Your task to perform on an android device: Go to Android settings Image 0: 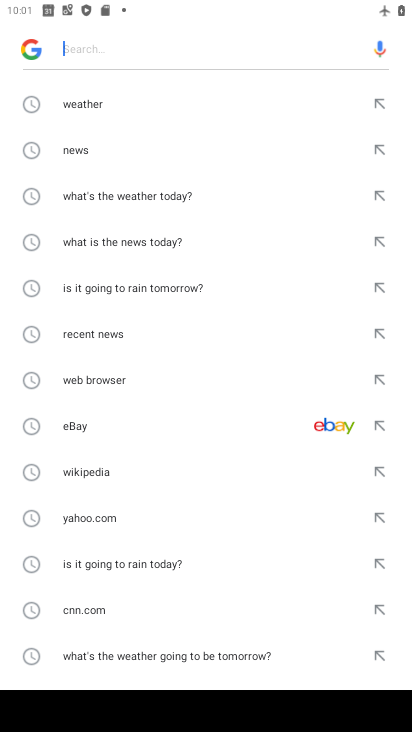
Step 0: press home button
Your task to perform on an android device: Go to Android settings Image 1: 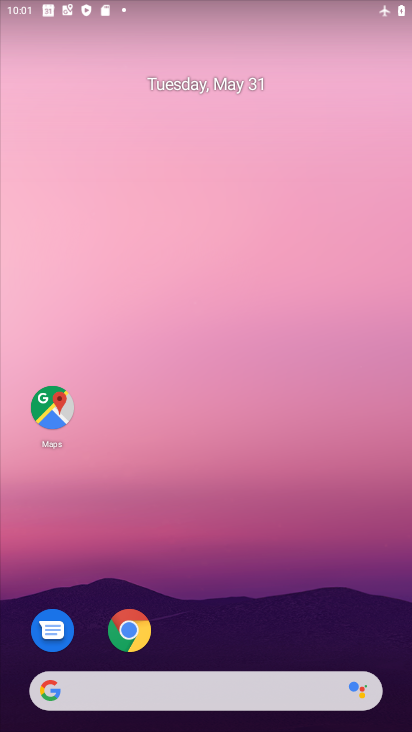
Step 1: drag from (250, 626) to (218, 217)
Your task to perform on an android device: Go to Android settings Image 2: 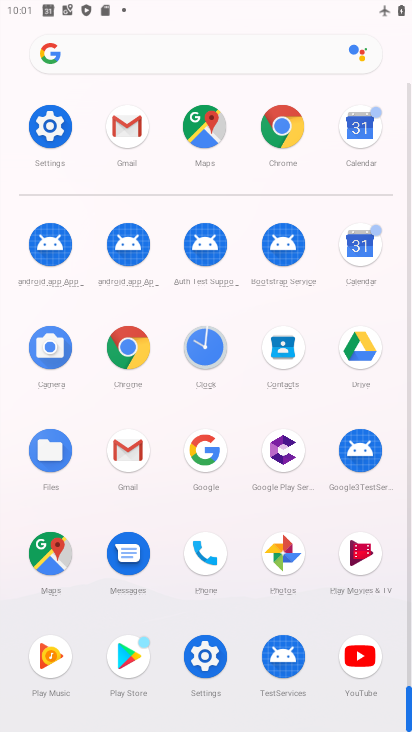
Step 2: click (49, 118)
Your task to perform on an android device: Go to Android settings Image 3: 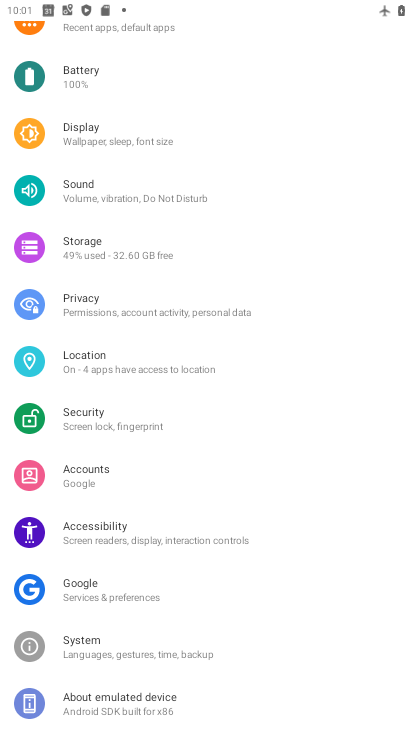
Step 3: task complete